Your task to perform on an android device: Search for Italian restaurants on Maps Image 0: 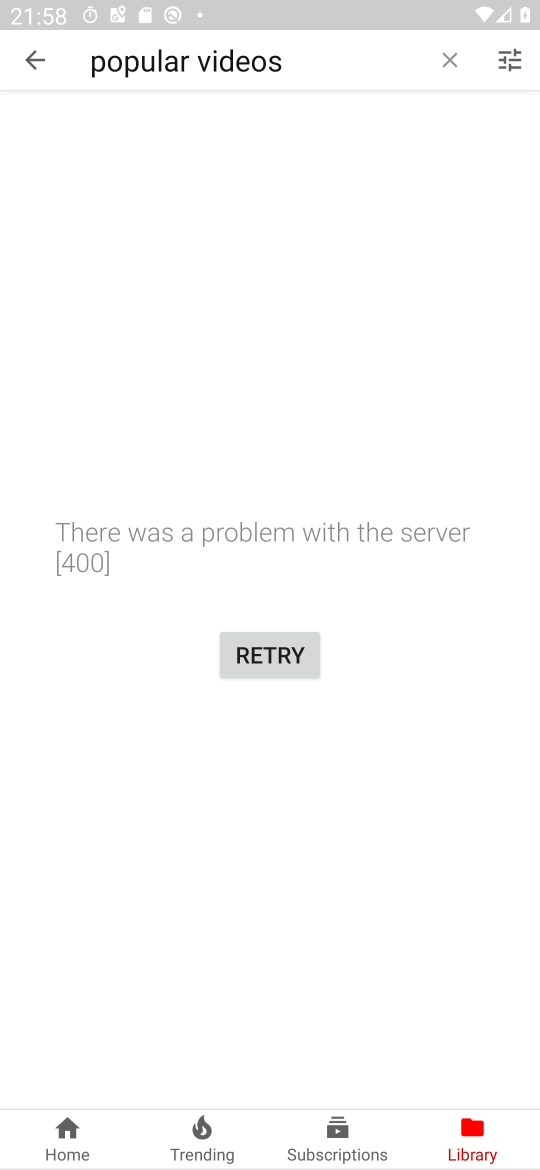
Step 0: press home button
Your task to perform on an android device: Search for Italian restaurants on Maps Image 1: 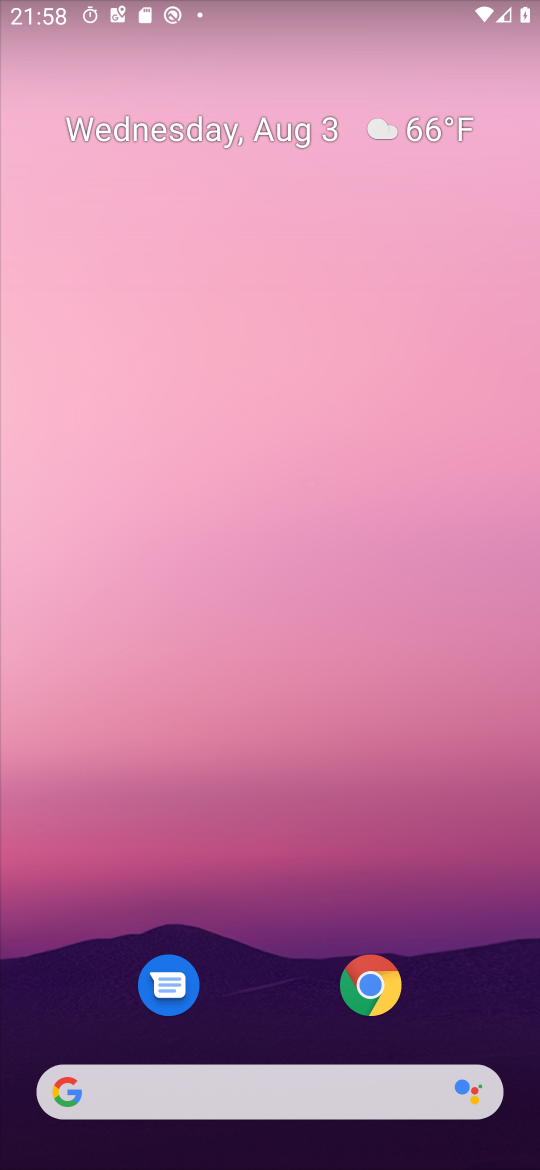
Step 1: drag from (285, 980) to (223, 199)
Your task to perform on an android device: Search for Italian restaurants on Maps Image 2: 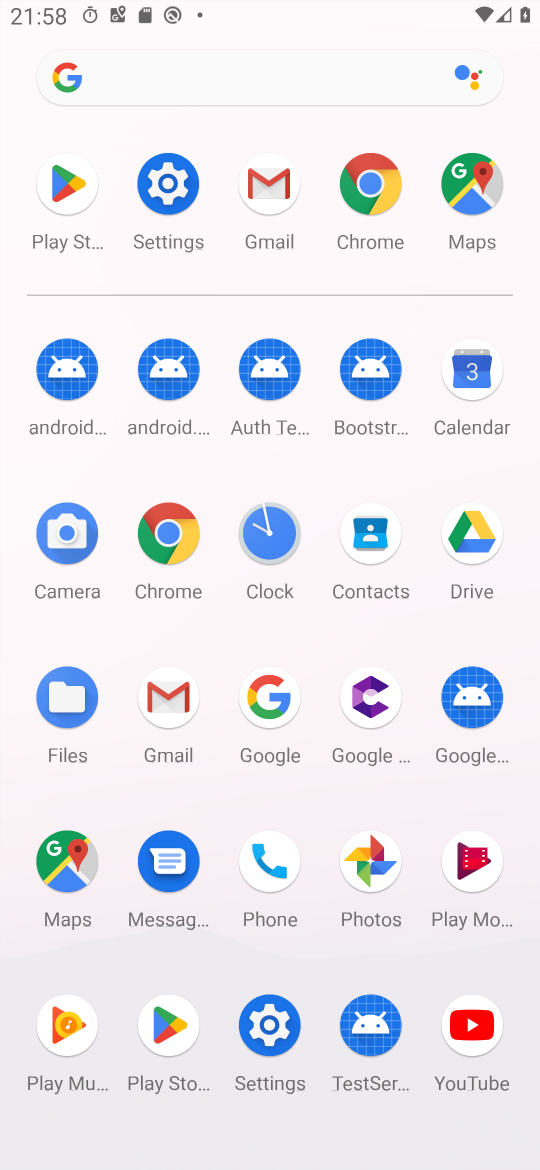
Step 2: click (84, 891)
Your task to perform on an android device: Search for Italian restaurants on Maps Image 3: 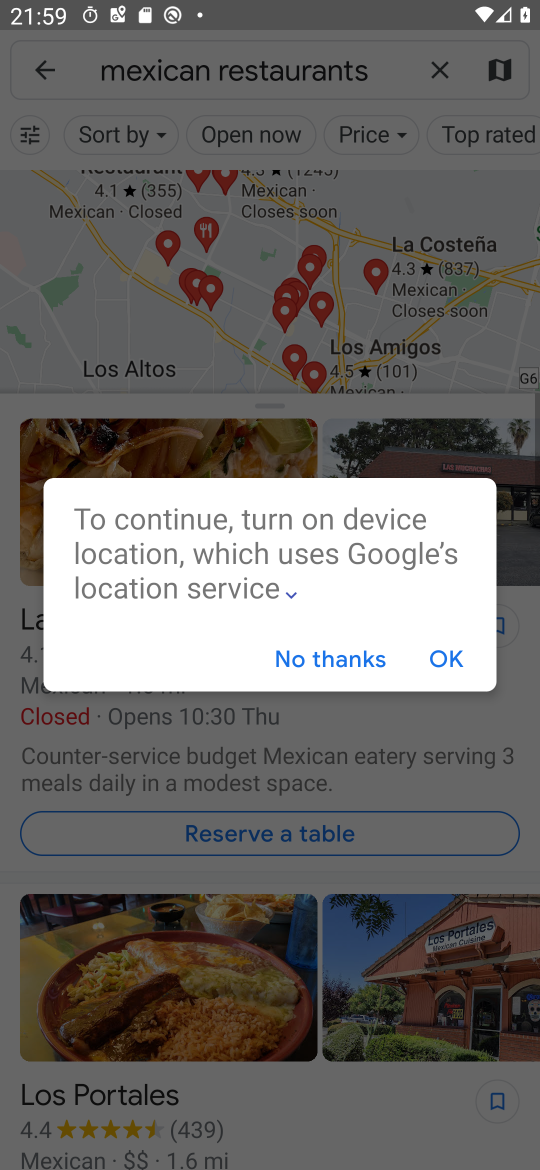
Step 3: click (443, 638)
Your task to perform on an android device: Search for Italian restaurants on Maps Image 4: 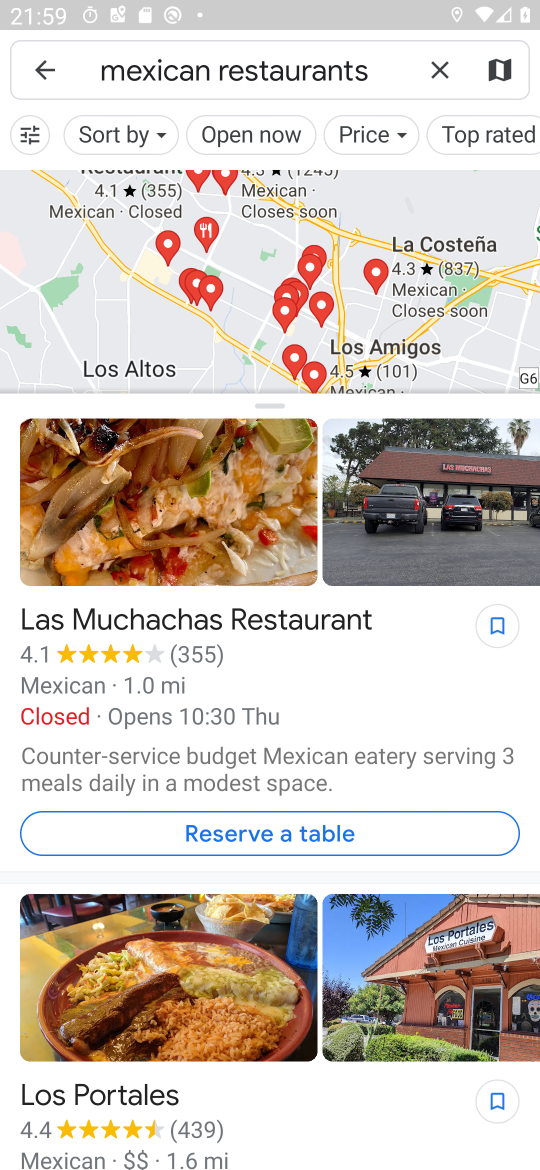
Step 4: click (427, 78)
Your task to perform on an android device: Search for Italian restaurants on Maps Image 5: 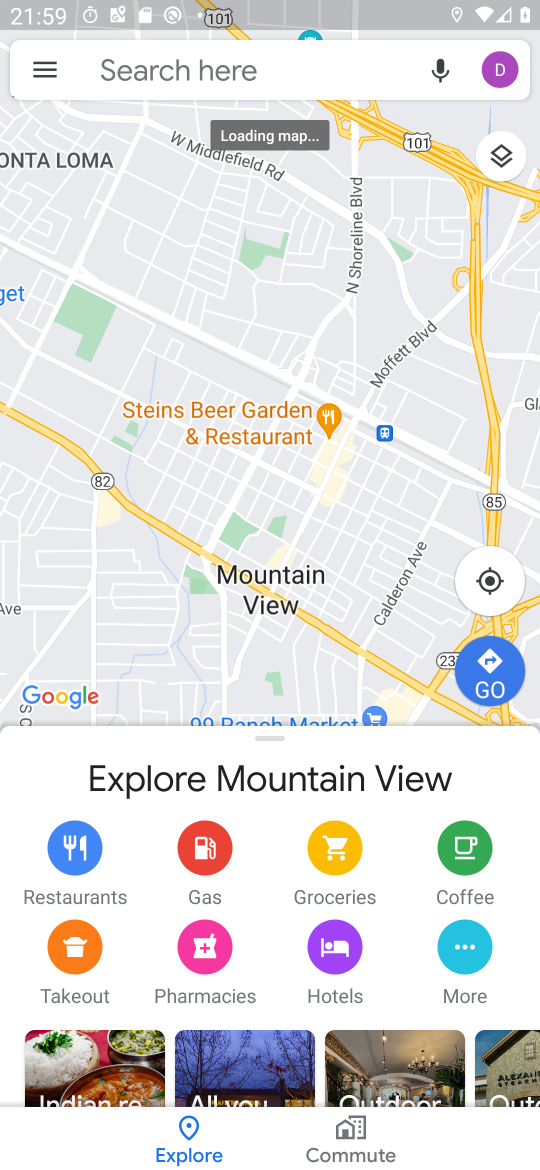
Step 5: click (332, 62)
Your task to perform on an android device: Search for Italian restaurants on Maps Image 6: 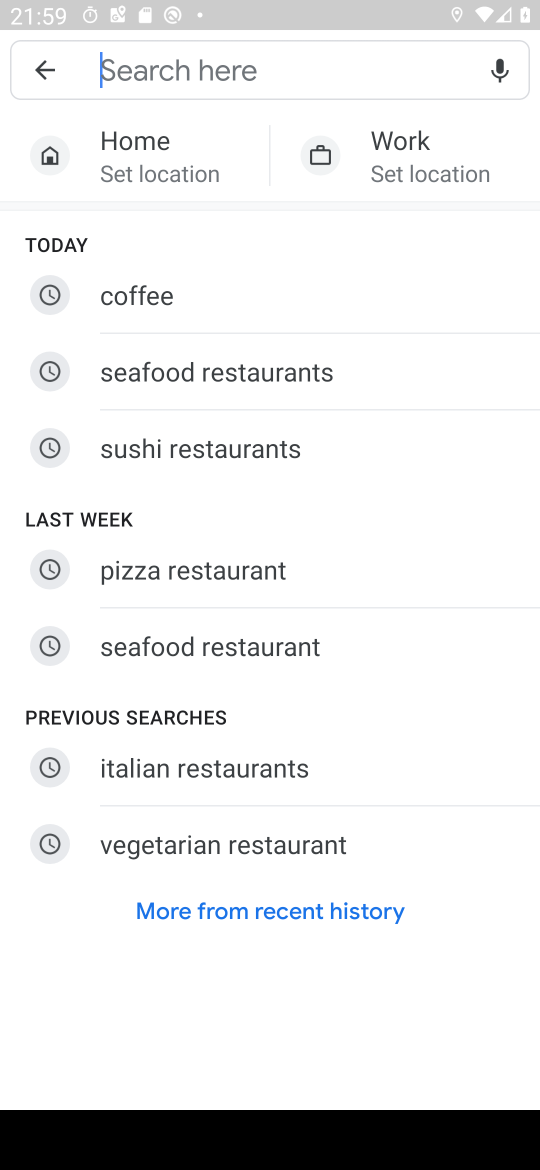
Step 6: click (204, 777)
Your task to perform on an android device: Search for Italian restaurants on Maps Image 7: 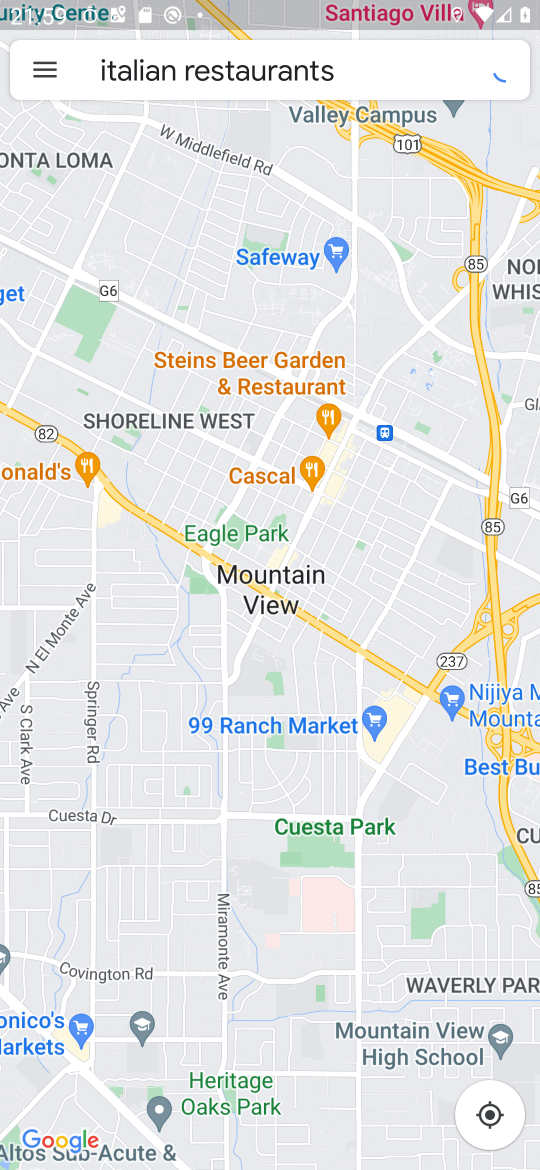
Step 7: task complete